Your task to perform on an android device: uninstall "Messenger Lite" Image 0: 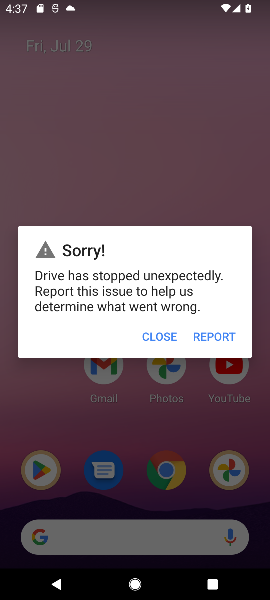
Step 0: press home button
Your task to perform on an android device: uninstall "Messenger Lite" Image 1: 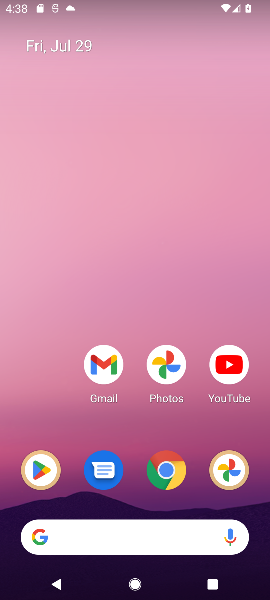
Step 1: click (45, 474)
Your task to perform on an android device: uninstall "Messenger Lite" Image 2: 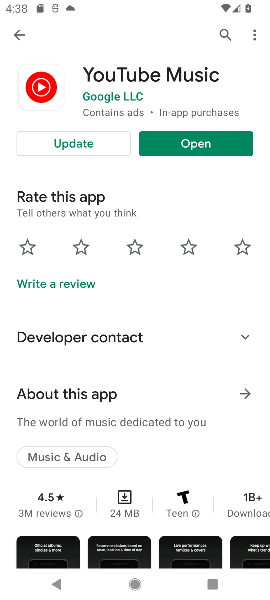
Step 2: click (222, 29)
Your task to perform on an android device: uninstall "Messenger Lite" Image 3: 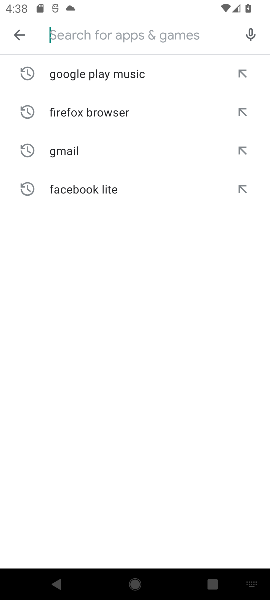
Step 3: type "Messenger Lite"
Your task to perform on an android device: uninstall "Messenger Lite" Image 4: 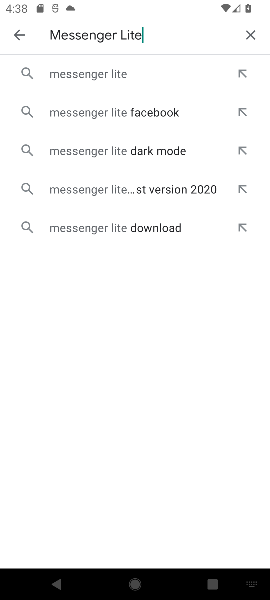
Step 4: type ""
Your task to perform on an android device: uninstall "Messenger Lite" Image 5: 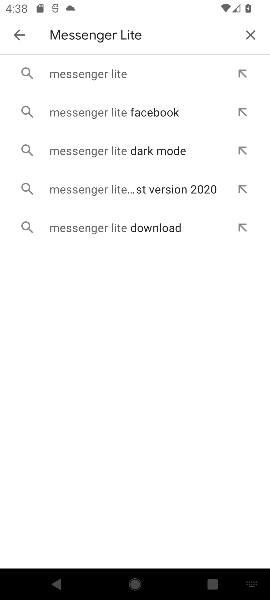
Step 5: click (116, 67)
Your task to perform on an android device: uninstall "Messenger Lite" Image 6: 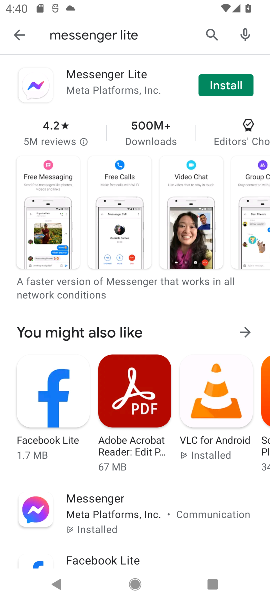
Step 6: task complete